Your task to perform on an android device: Open the calendar app, open the side menu, and click the "Day" option Image 0: 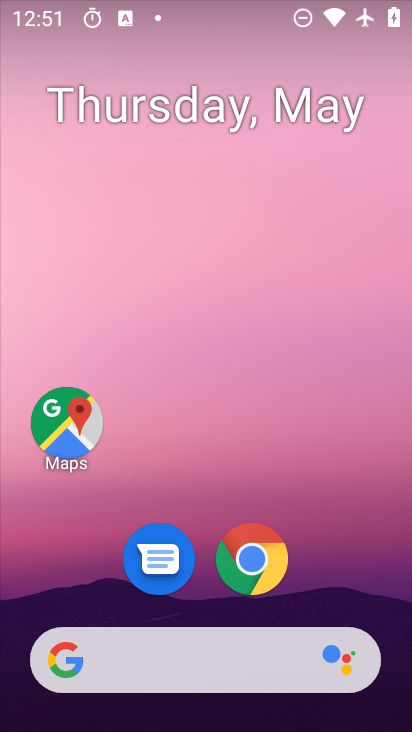
Step 0: drag from (236, 647) to (228, 252)
Your task to perform on an android device: Open the calendar app, open the side menu, and click the "Day" option Image 1: 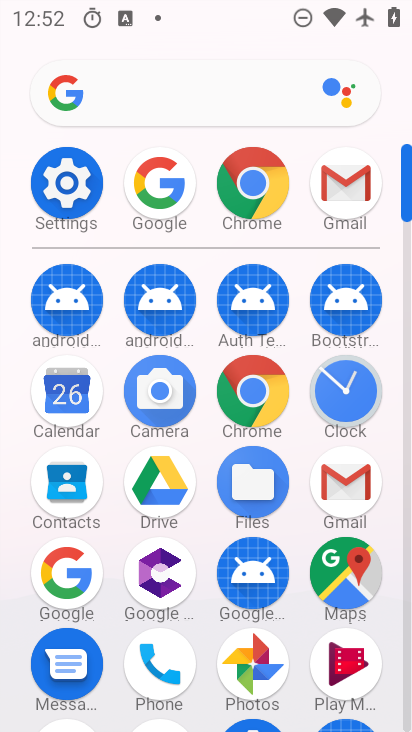
Step 1: click (82, 400)
Your task to perform on an android device: Open the calendar app, open the side menu, and click the "Day" option Image 2: 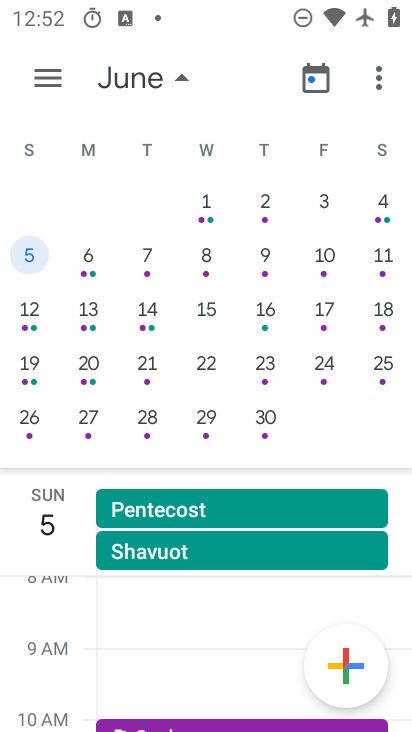
Step 2: click (61, 79)
Your task to perform on an android device: Open the calendar app, open the side menu, and click the "Day" option Image 3: 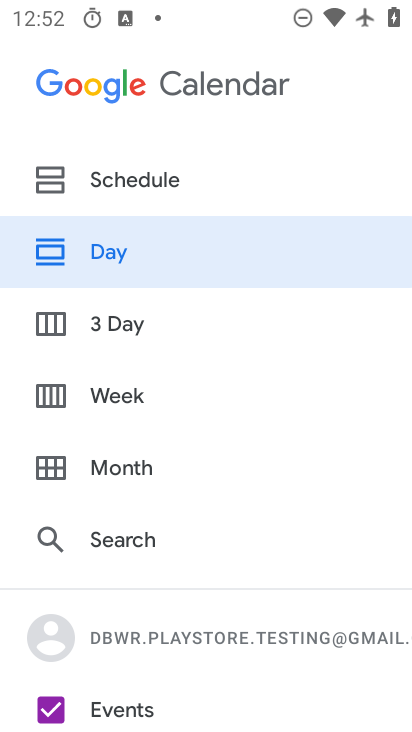
Step 3: task complete